Your task to perform on an android device: turn off data saver in the chrome app Image 0: 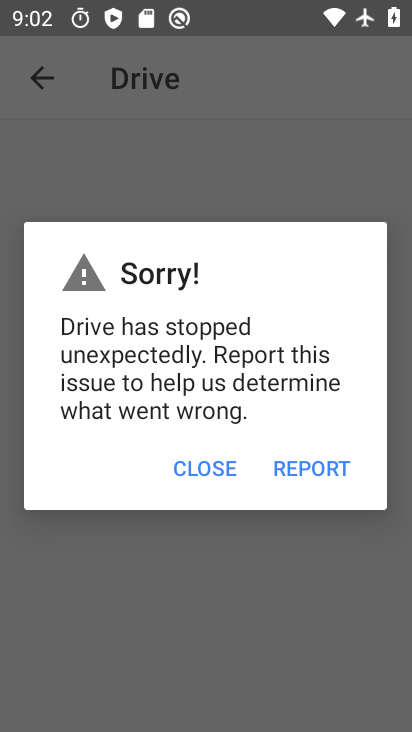
Step 0: press home button
Your task to perform on an android device: turn off data saver in the chrome app Image 1: 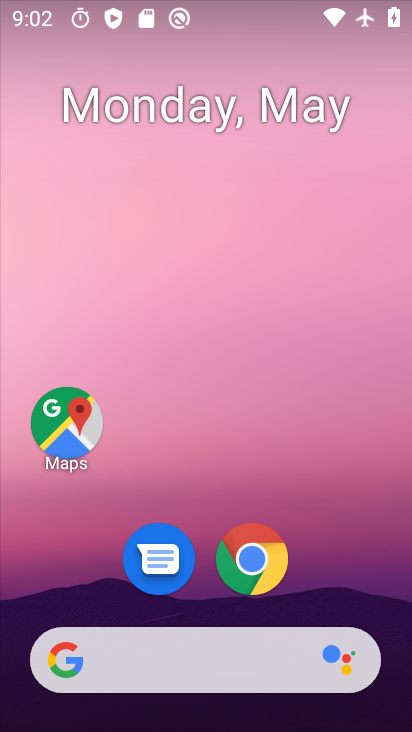
Step 1: click (257, 563)
Your task to perform on an android device: turn off data saver in the chrome app Image 2: 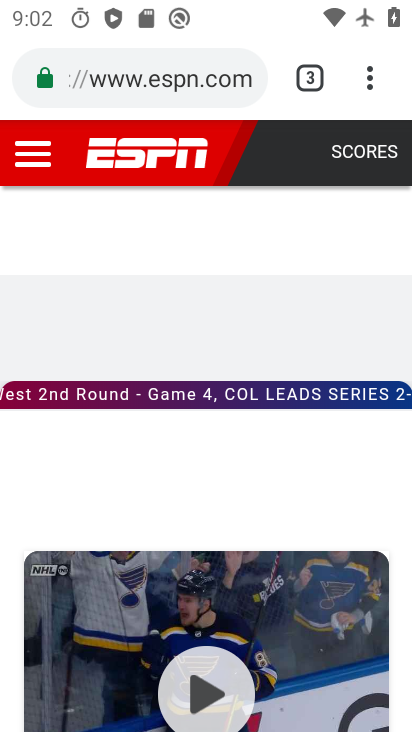
Step 2: click (374, 71)
Your task to perform on an android device: turn off data saver in the chrome app Image 3: 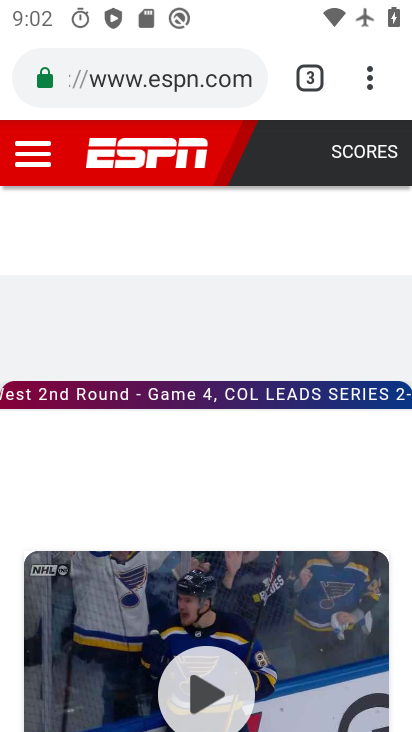
Step 3: click (380, 76)
Your task to perform on an android device: turn off data saver in the chrome app Image 4: 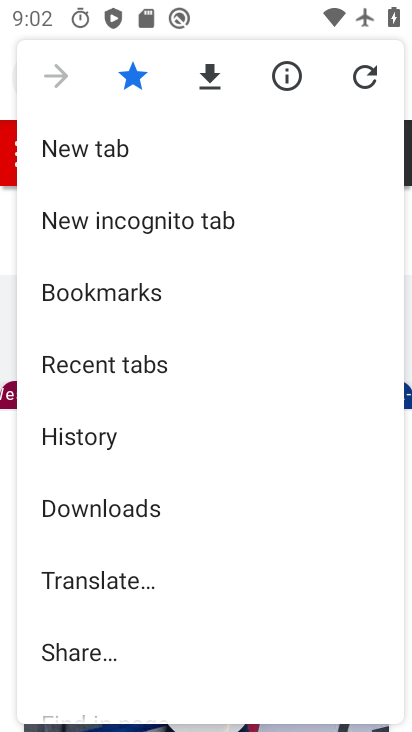
Step 4: drag from (147, 659) to (146, 240)
Your task to perform on an android device: turn off data saver in the chrome app Image 5: 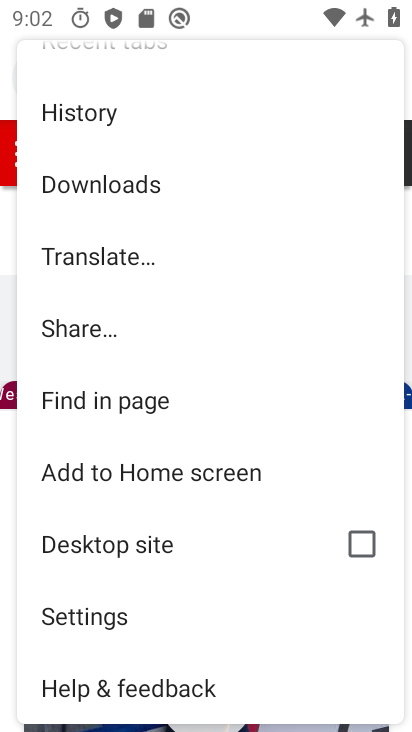
Step 5: click (128, 611)
Your task to perform on an android device: turn off data saver in the chrome app Image 6: 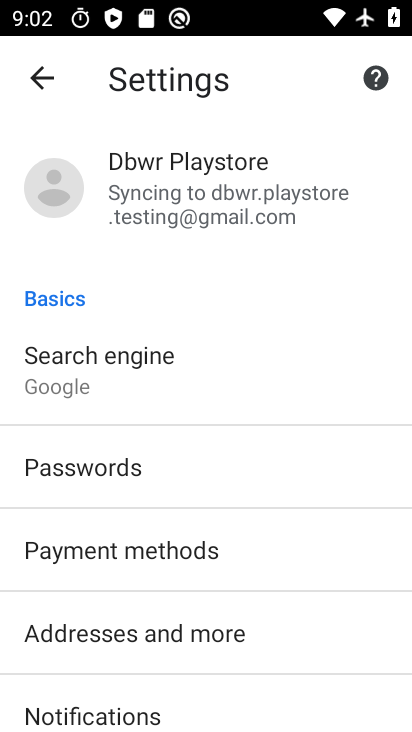
Step 6: drag from (119, 659) to (115, 363)
Your task to perform on an android device: turn off data saver in the chrome app Image 7: 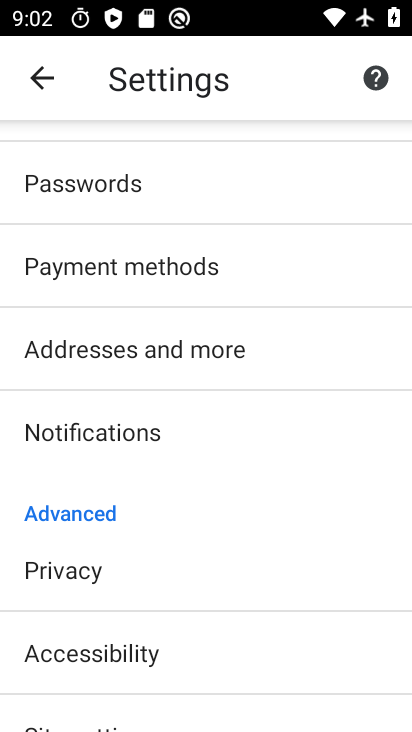
Step 7: drag from (153, 650) to (173, 389)
Your task to perform on an android device: turn off data saver in the chrome app Image 8: 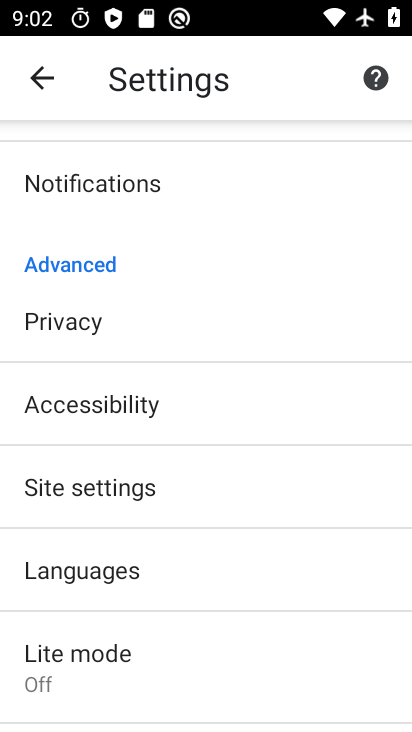
Step 8: click (98, 670)
Your task to perform on an android device: turn off data saver in the chrome app Image 9: 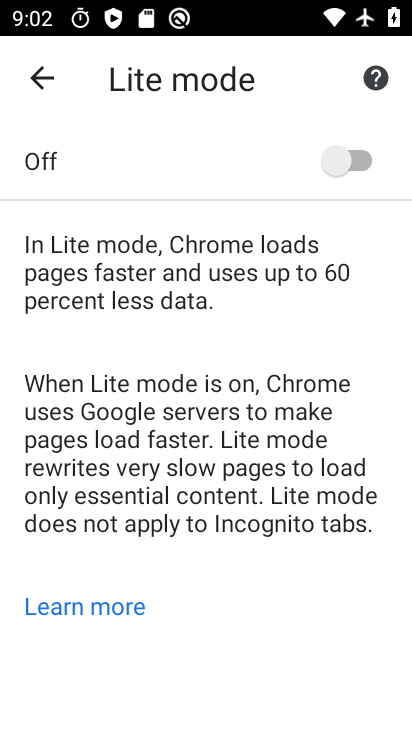
Step 9: task complete